Your task to perform on an android device: Open the map Image 0: 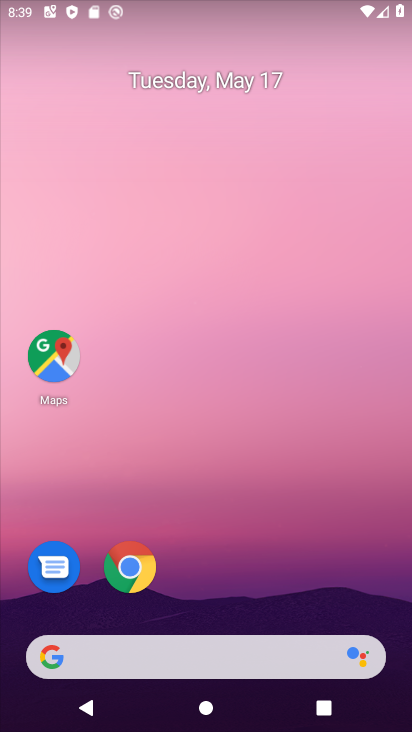
Step 0: click (50, 353)
Your task to perform on an android device: Open the map Image 1: 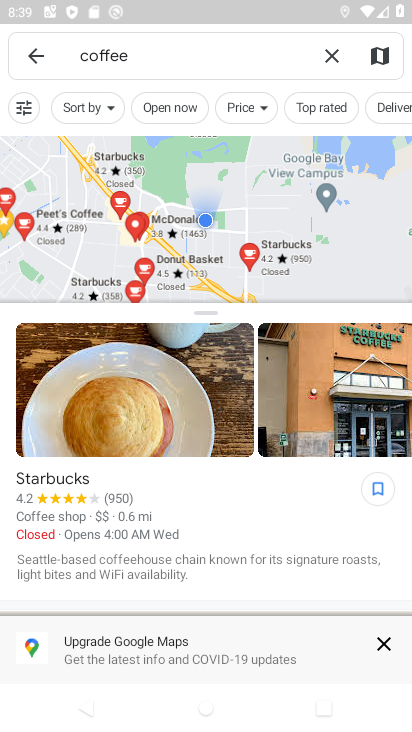
Step 1: task complete